Your task to perform on an android device: Go to wifi settings Image 0: 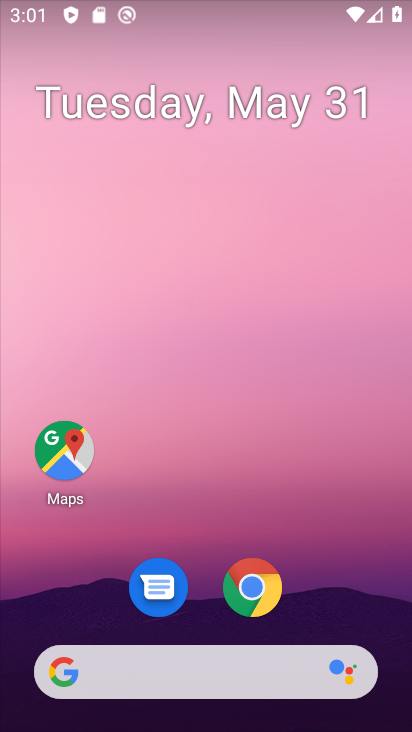
Step 0: drag from (335, 612) to (357, 11)
Your task to perform on an android device: Go to wifi settings Image 1: 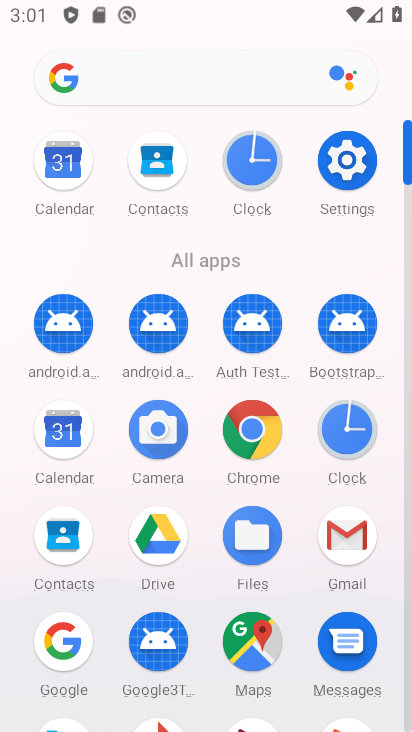
Step 1: click (348, 155)
Your task to perform on an android device: Go to wifi settings Image 2: 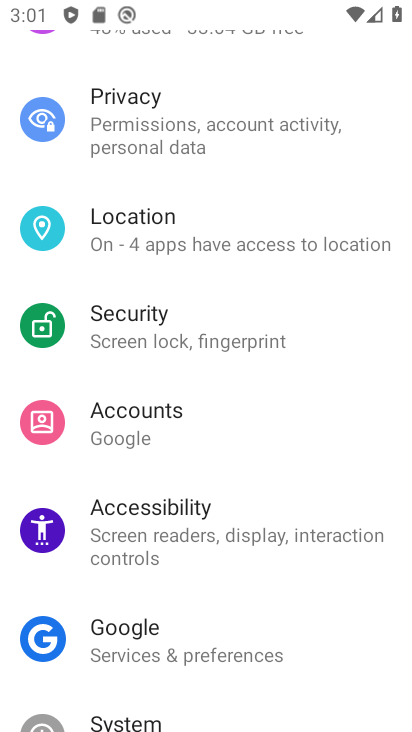
Step 2: drag from (141, 165) to (234, 658)
Your task to perform on an android device: Go to wifi settings Image 3: 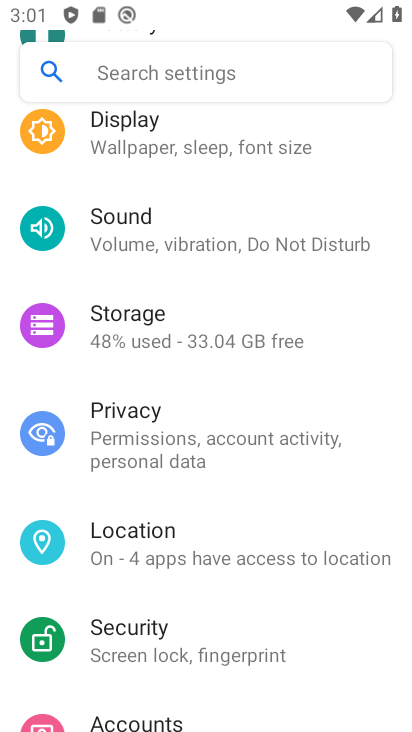
Step 3: drag from (183, 201) to (189, 673)
Your task to perform on an android device: Go to wifi settings Image 4: 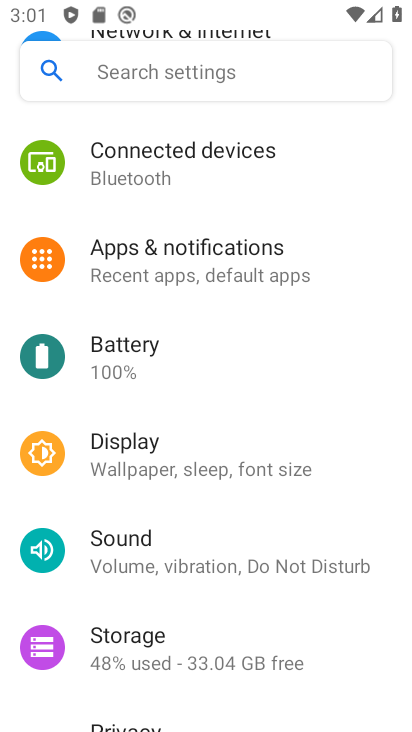
Step 4: drag from (216, 218) to (225, 713)
Your task to perform on an android device: Go to wifi settings Image 5: 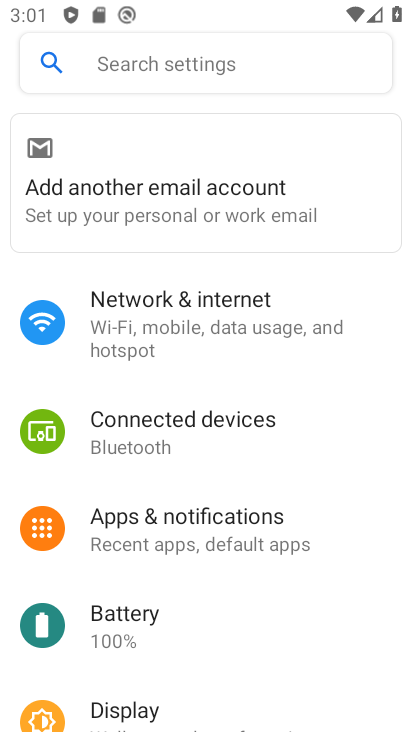
Step 5: click (120, 322)
Your task to perform on an android device: Go to wifi settings Image 6: 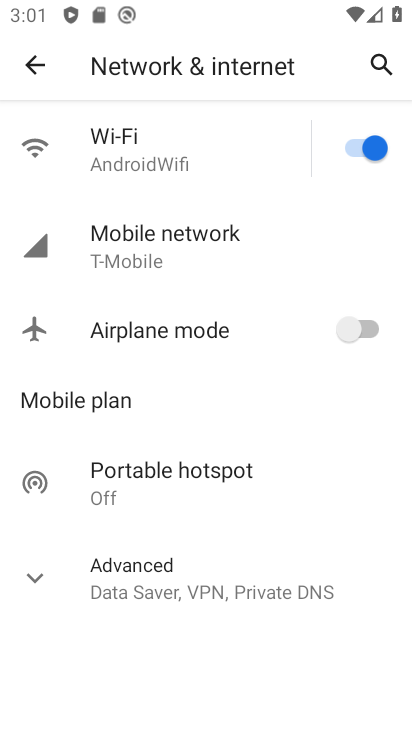
Step 6: click (148, 153)
Your task to perform on an android device: Go to wifi settings Image 7: 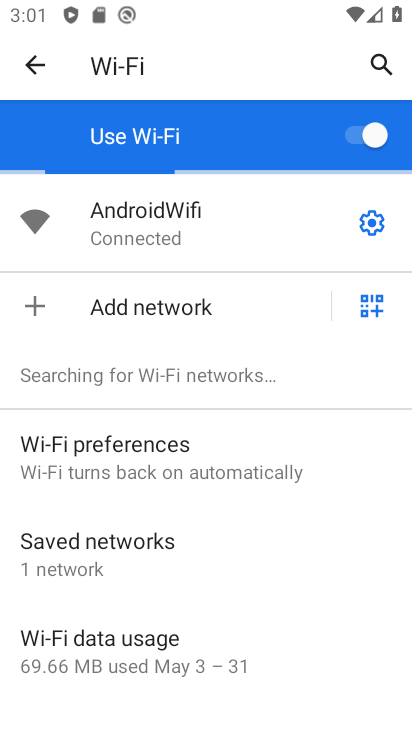
Step 7: task complete